Your task to perform on an android device: Open the map Image 0: 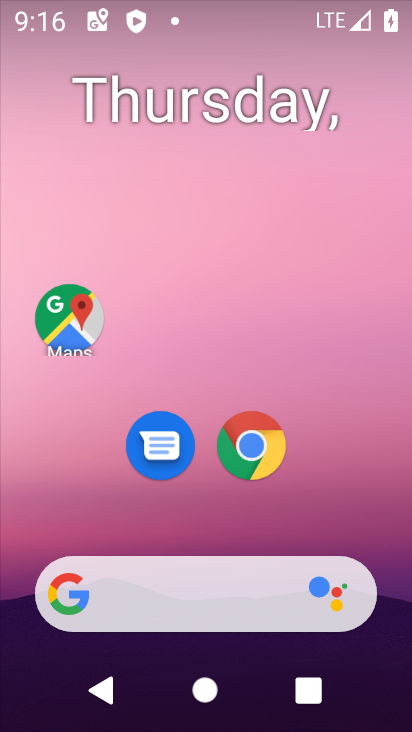
Step 0: drag from (237, 291) to (237, 139)
Your task to perform on an android device: Open the map Image 1: 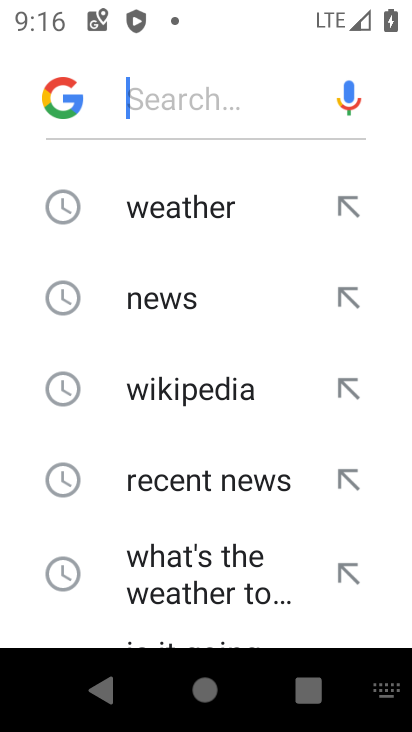
Step 1: press back button
Your task to perform on an android device: Open the map Image 2: 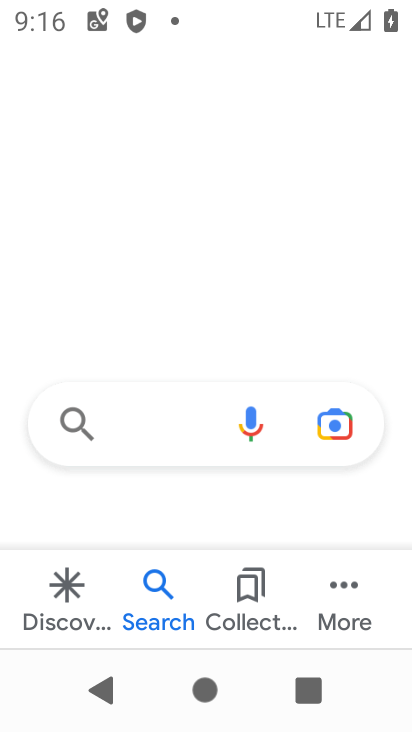
Step 2: press home button
Your task to perform on an android device: Open the map Image 3: 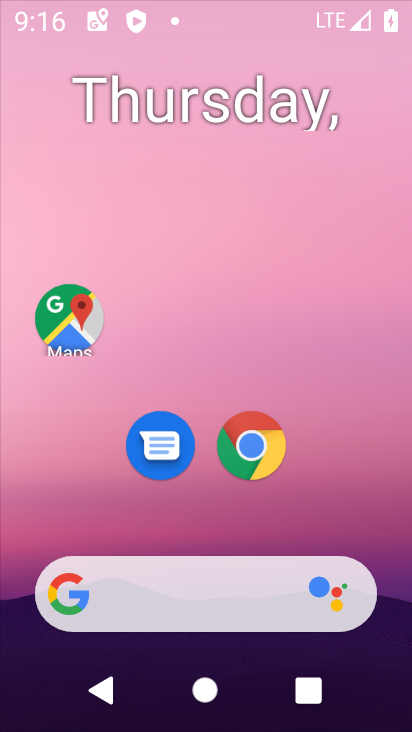
Step 3: drag from (164, 545) to (181, 154)
Your task to perform on an android device: Open the map Image 4: 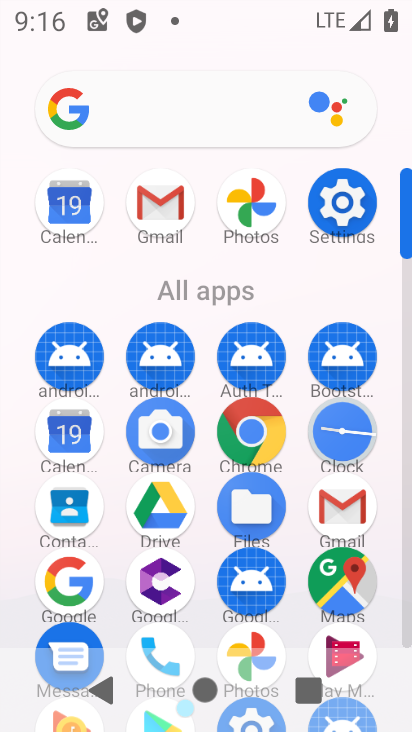
Step 4: click (351, 580)
Your task to perform on an android device: Open the map Image 5: 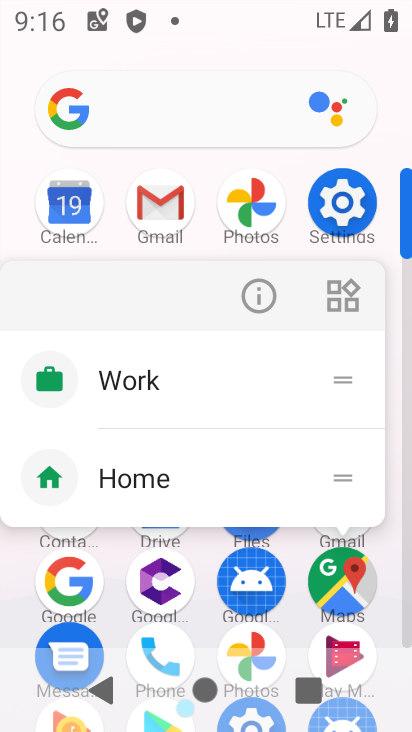
Step 5: click (246, 306)
Your task to perform on an android device: Open the map Image 6: 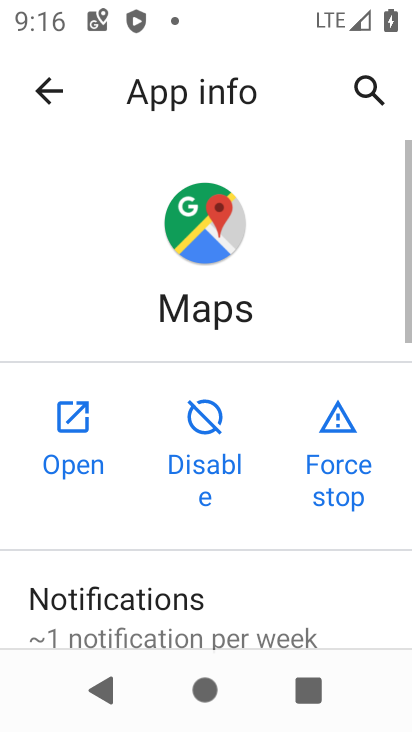
Step 6: click (45, 414)
Your task to perform on an android device: Open the map Image 7: 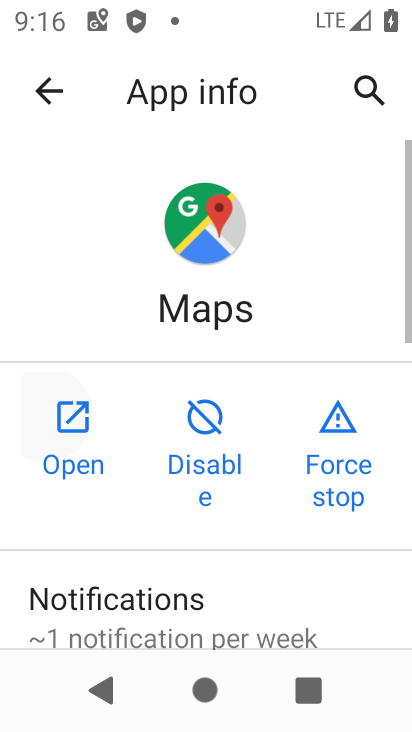
Step 7: click (45, 414)
Your task to perform on an android device: Open the map Image 8: 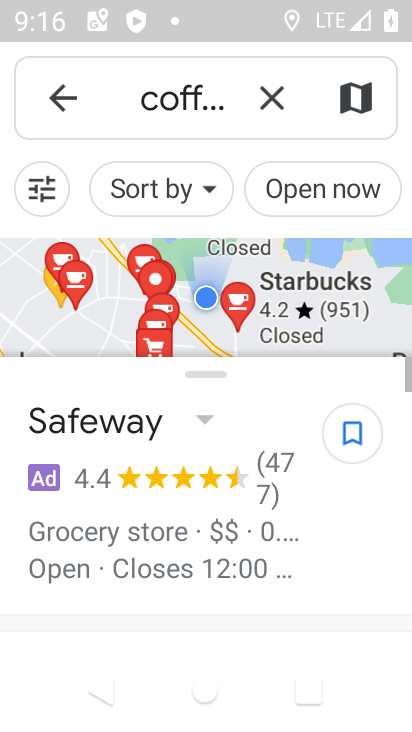
Step 8: task complete